Your task to perform on an android device: Open Google Maps Image 0: 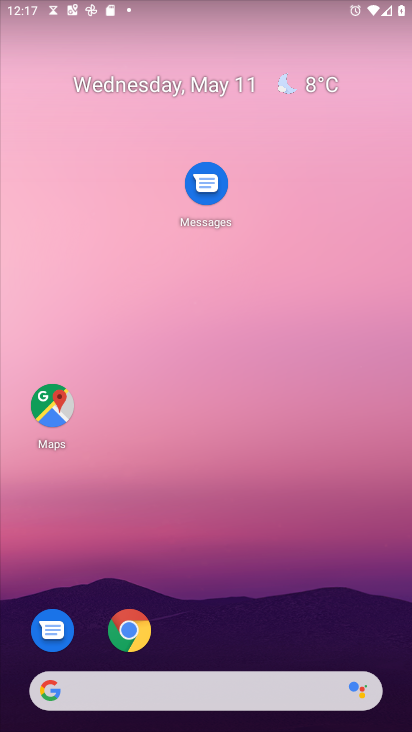
Step 0: click (35, 390)
Your task to perform on an android device: Open Google Maps Image 1: 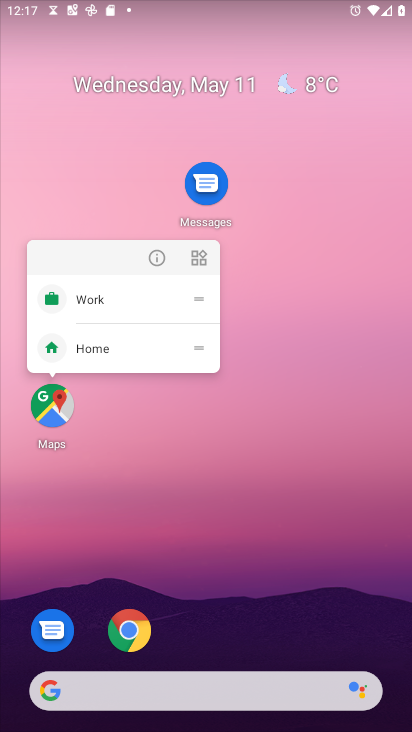
Step 1: click (52, 383)
Your task to perform on an android device: Open Google Maps Image 2: 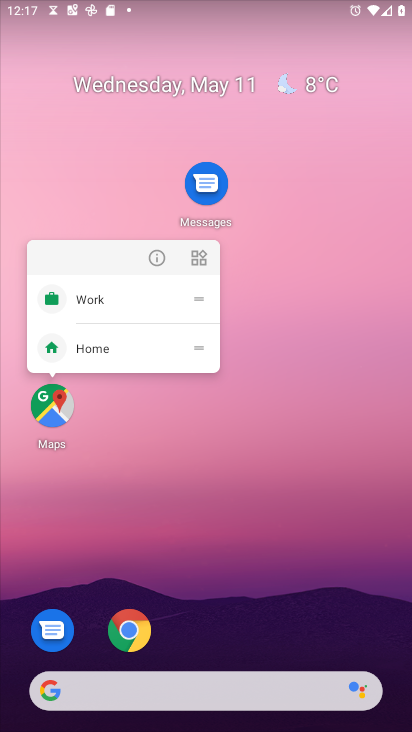
Step 2: click (49, 407)
Your task to perform on an android device: Open Google Maps Image 3: 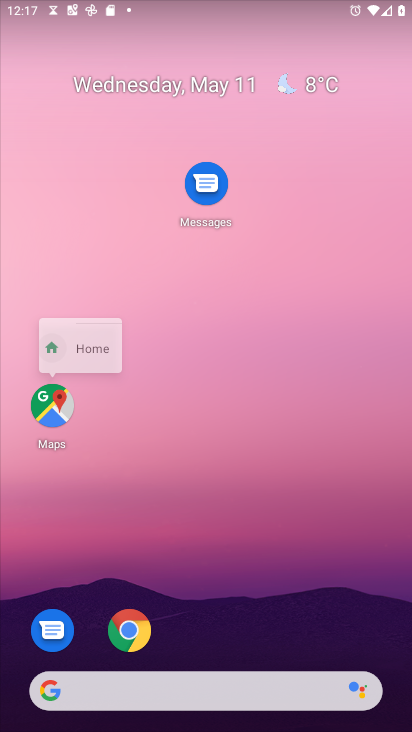
Step 3: click (49, 407)
Your task to perform on an android device: Open Google Maps Image 4: 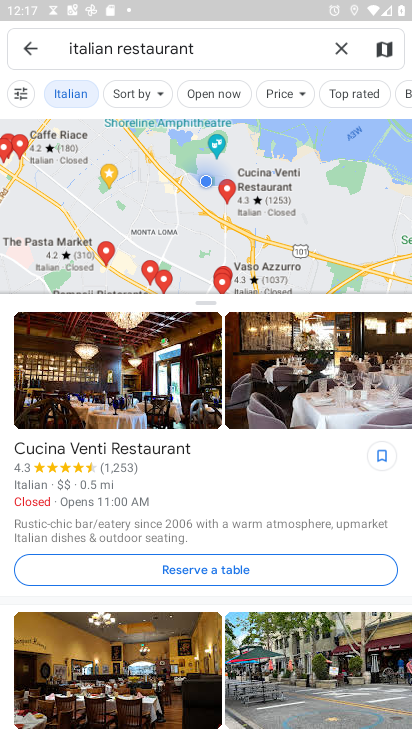
Step 4: click (336, 48)
Your task to perform on an android device: Open Google Maps Image 5: 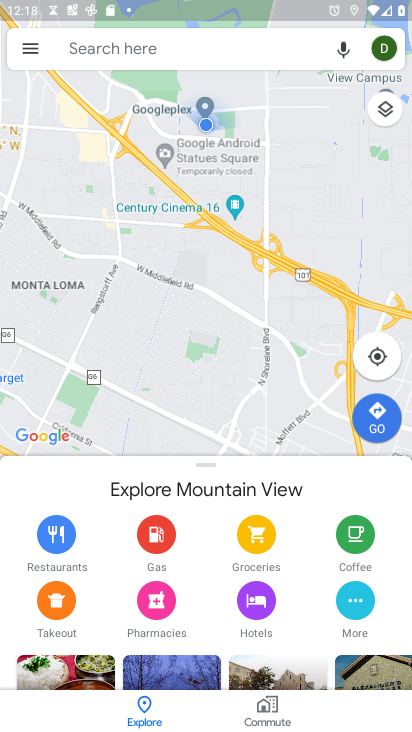
Step 5: task complete